Your task to perform on an android device: add a contact in the contacts app Image 0: 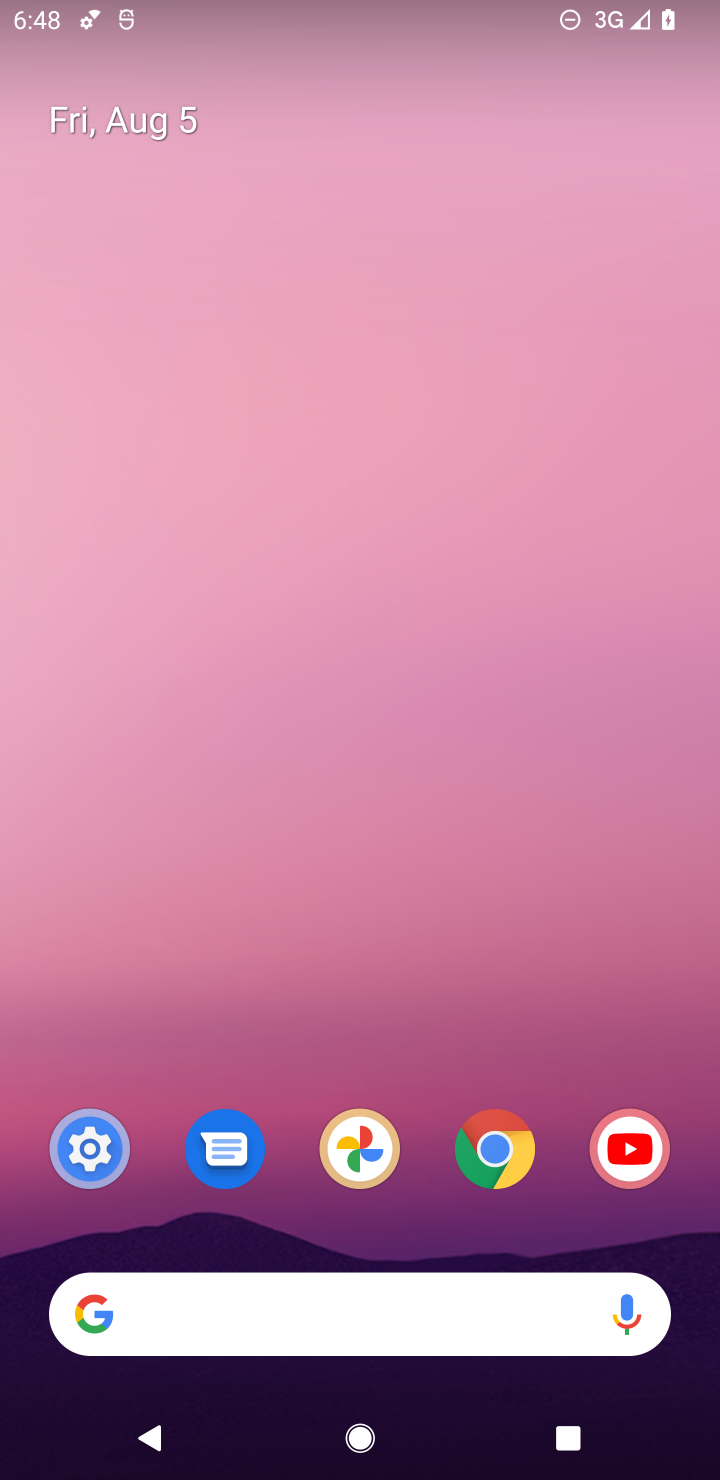
Step 0: drag from (277, 1006) to (463, 547)
Your task to perform on an android device: add a contact in the contacts app Image 1: 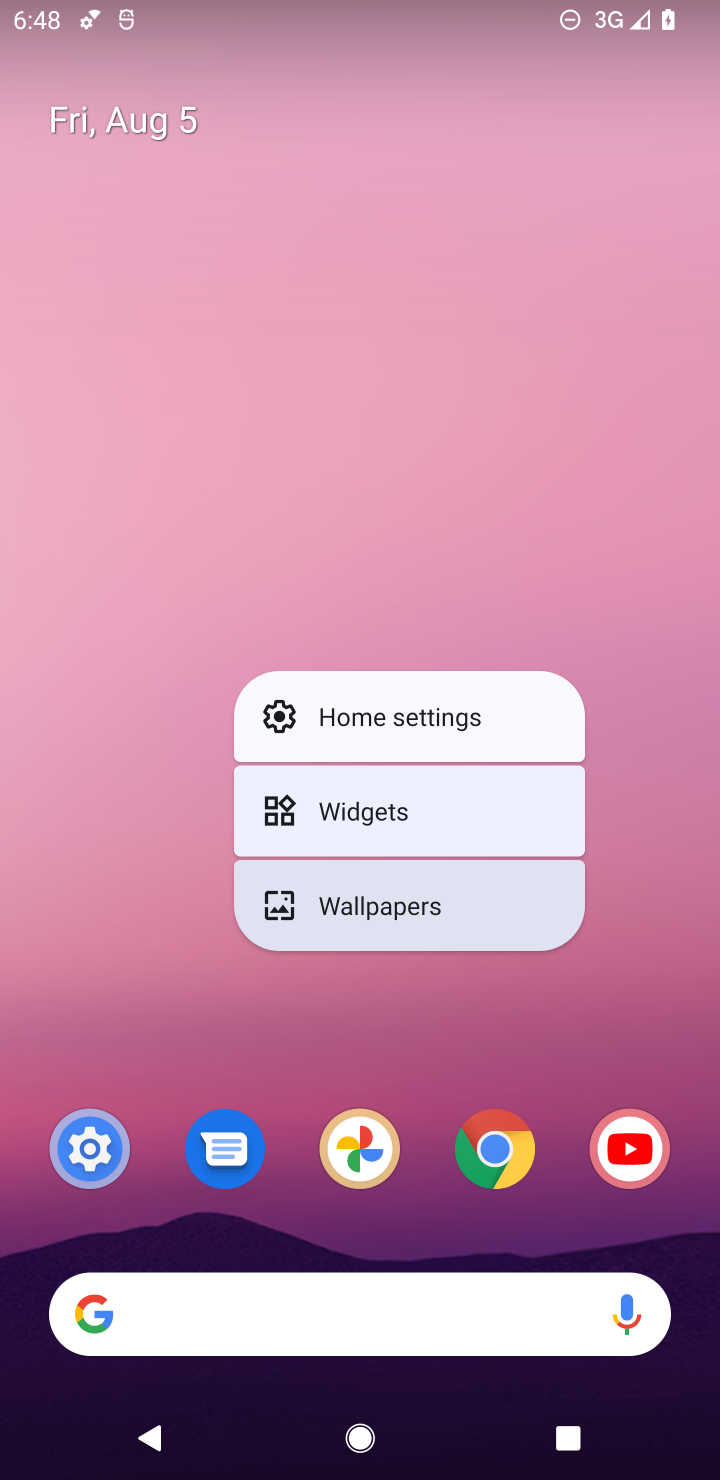
Step 1: click (277, 543)
Your task to perform on an android device: add a contact in the contacts app Image 2: 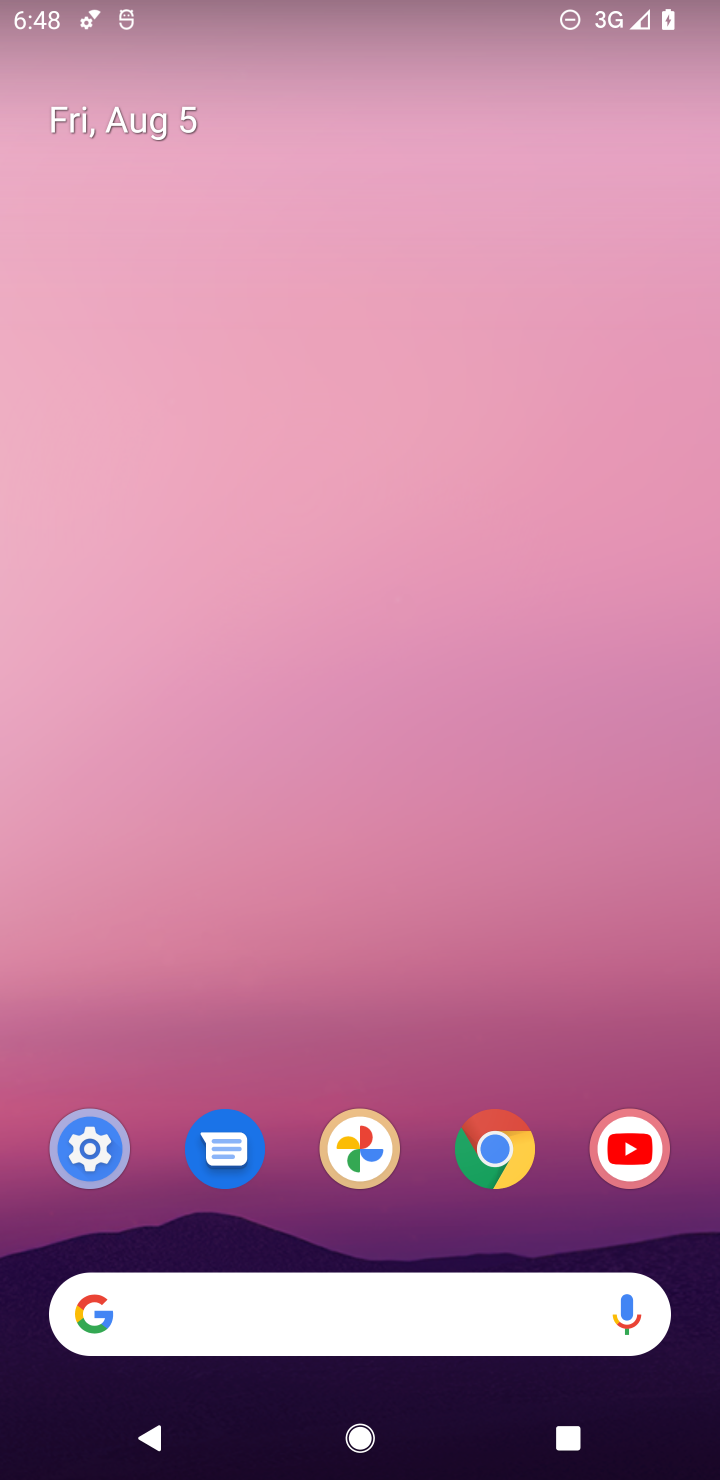
Step 2: drag from (132, 946) to (353, 291)
Your task to perform on an android device: add a contact in the contacts app Image 3: 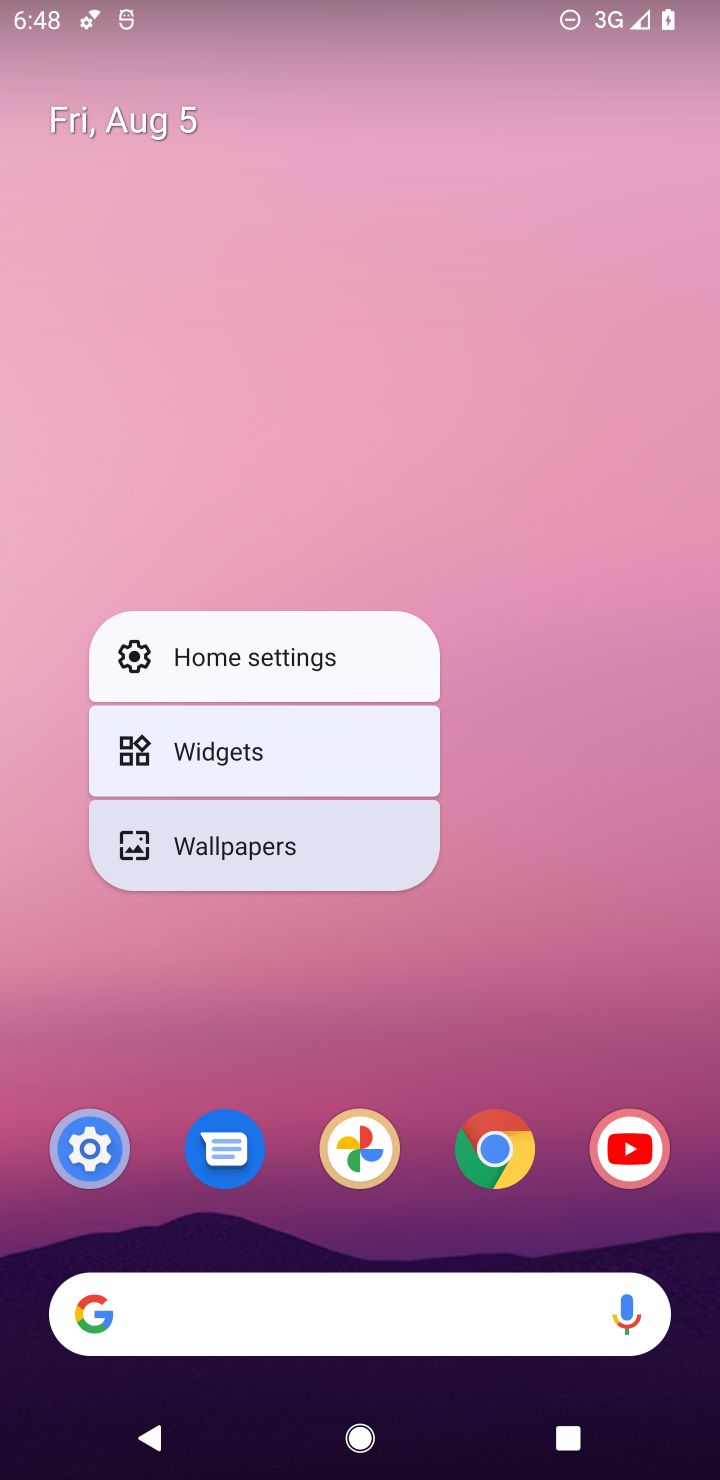
Step 3: click (483, 855)
Your task to perform on an android device: add a contact in the contacts app Image 4: 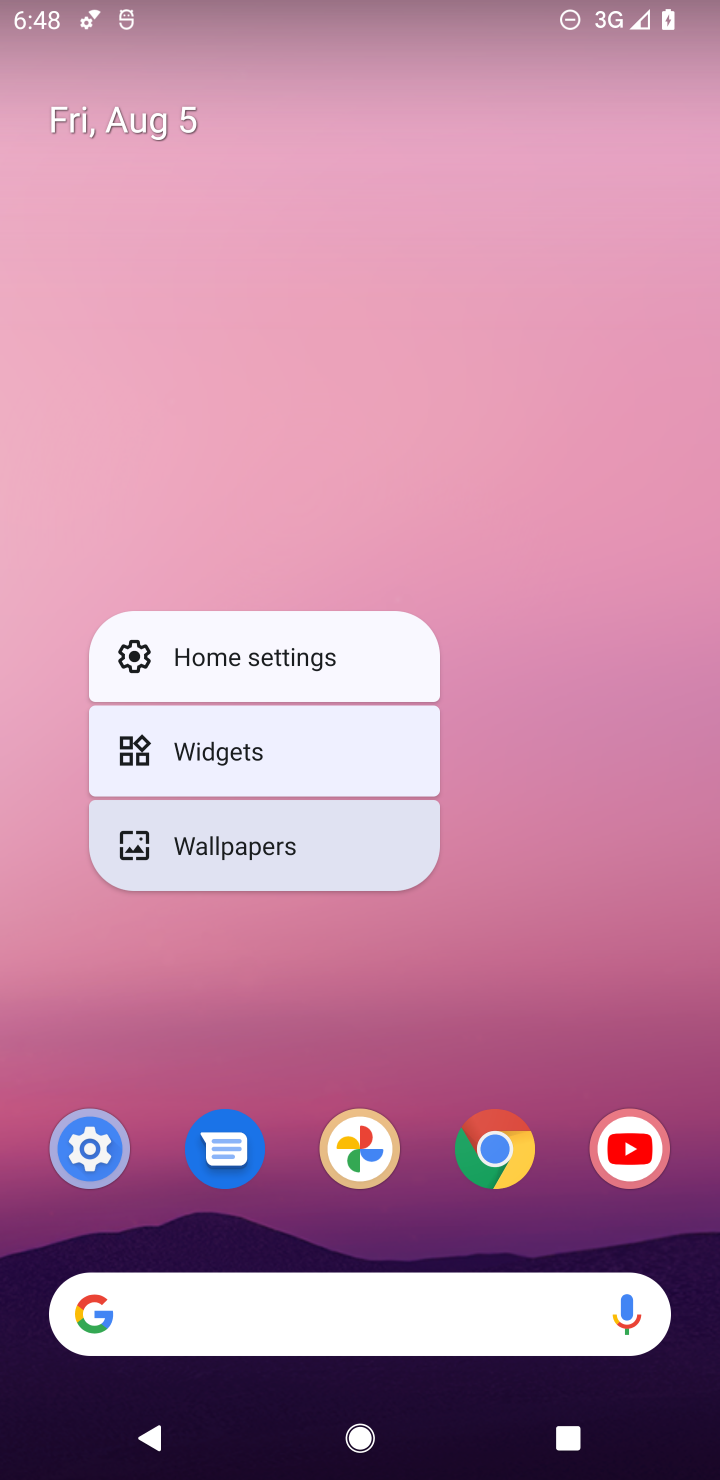
Step 4: drag from (483, 855) to (673, 246)
Your task to perform on an android device: add a contact in the contacts app Image 5: 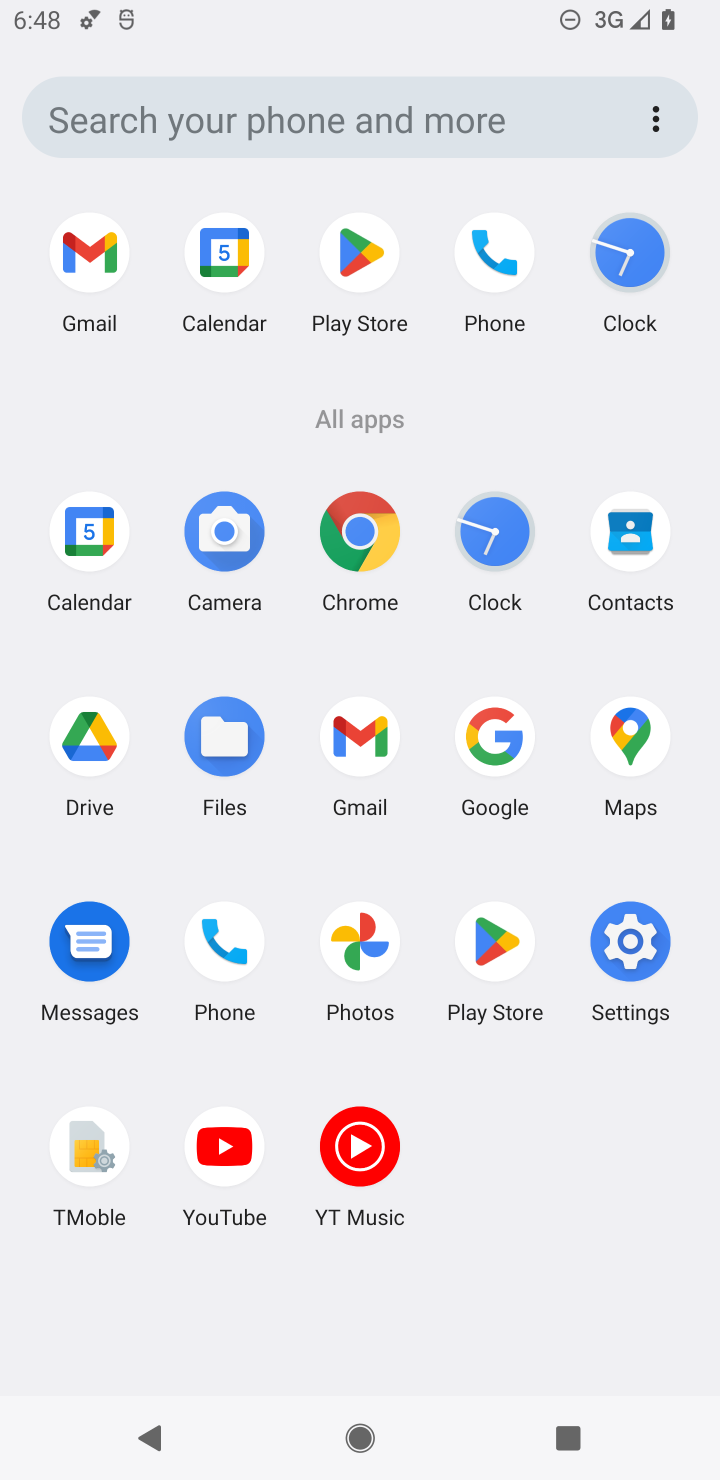
Step 5: click (492, 273)
Your task to perform on an android device: add a contact in the contacts app Image 6: 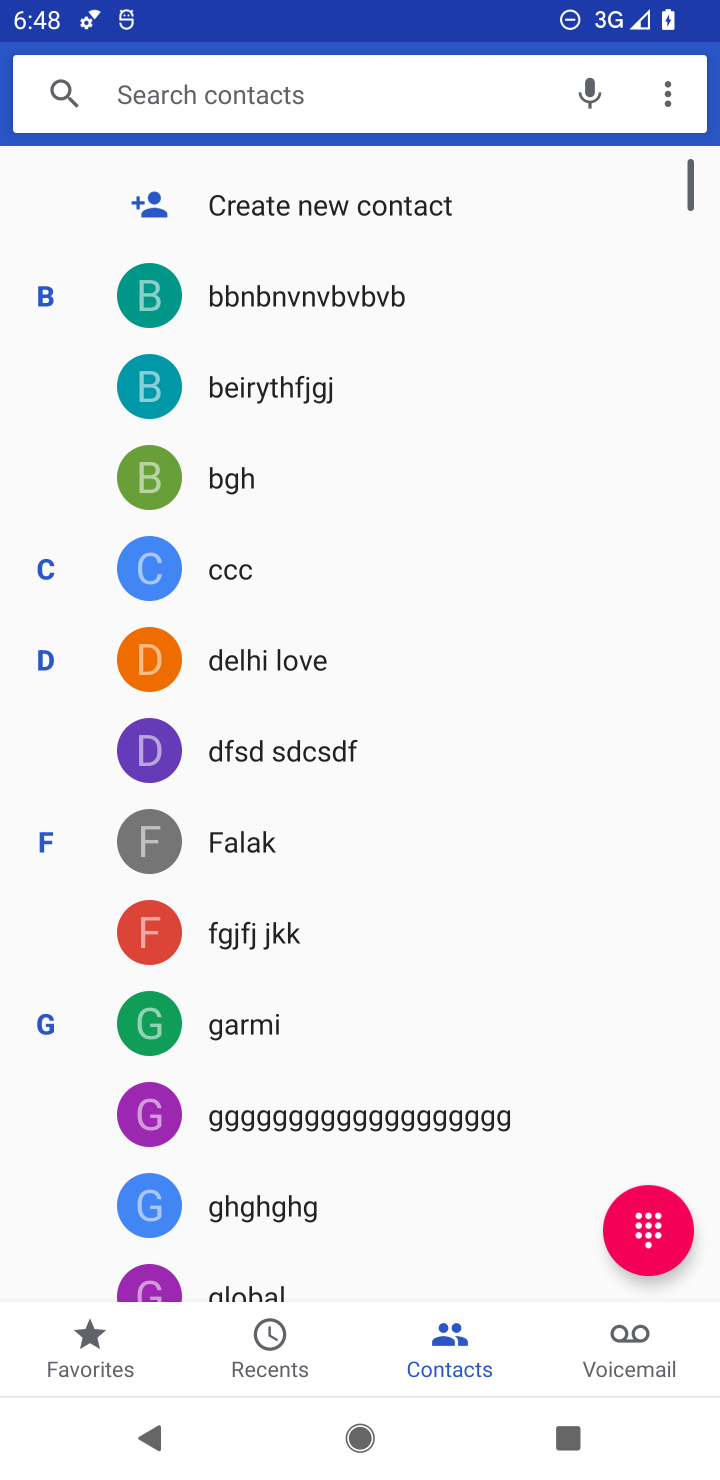
Step 6: click (347, 193)
Your task to perform on an android device: add a contact in the contacts app Image 7: 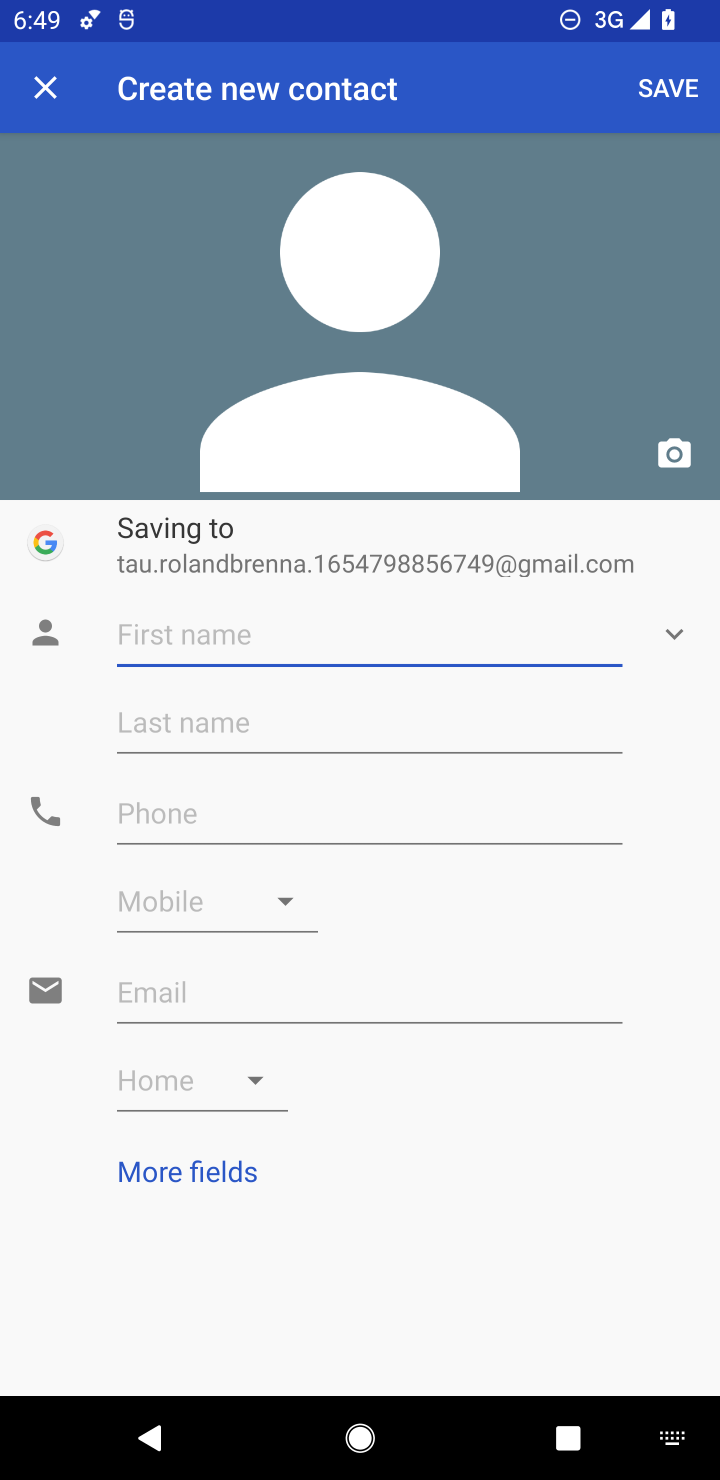
Step 7: type "ab"
Your task to perform on an android device: add a contact in the contacts app Image 8: 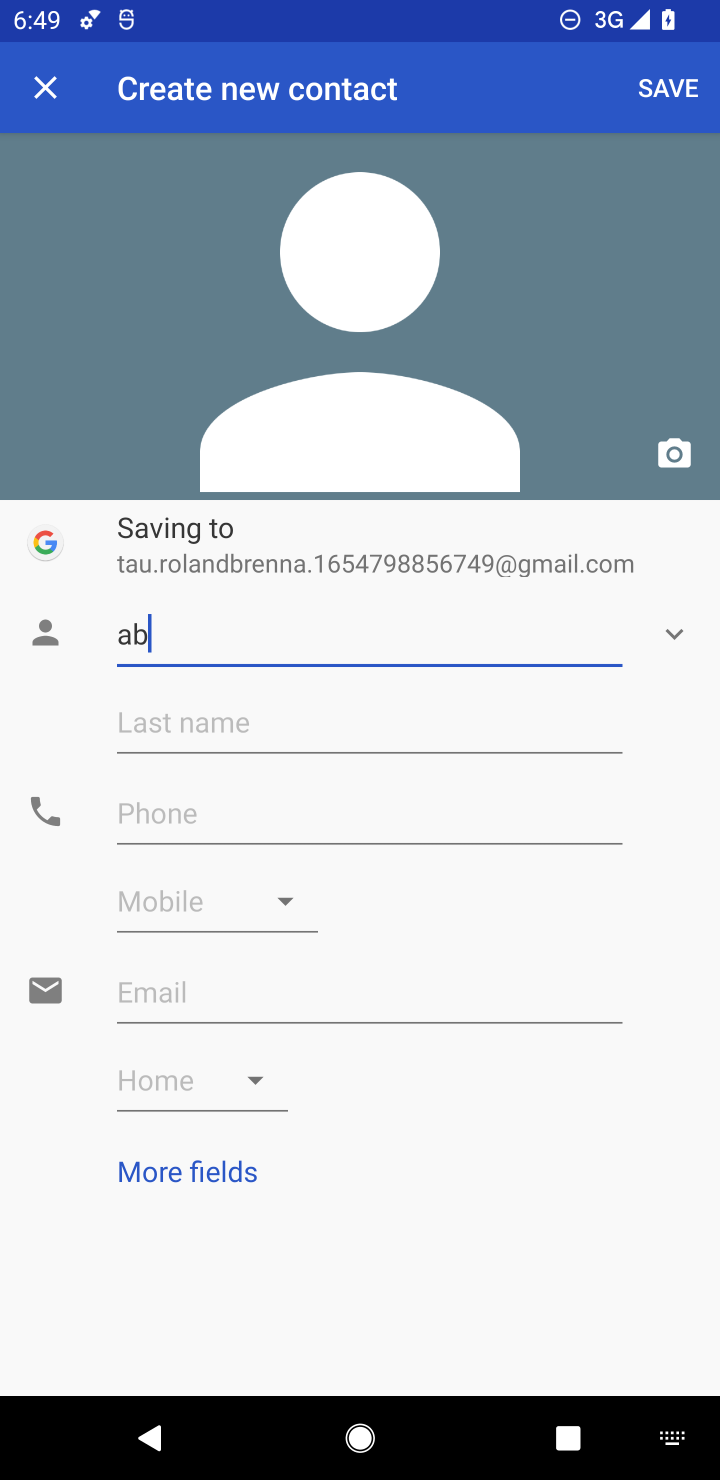
Step 8: click (218, 818)
Your task to perform on an android device: add a contact in the contacts app Image 9: 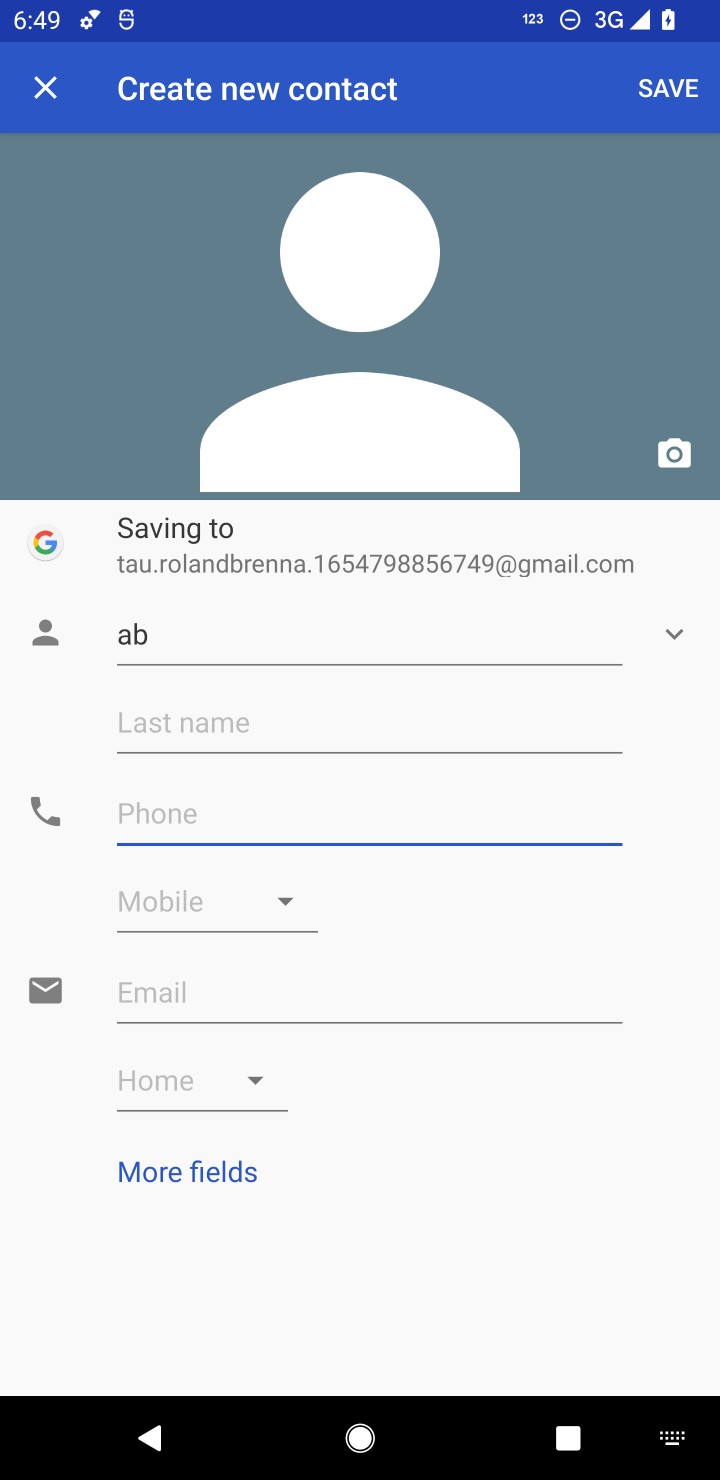
Step 9: type "1234"
Your task to perform on an android device: add a contact in the contacts app Image 10: 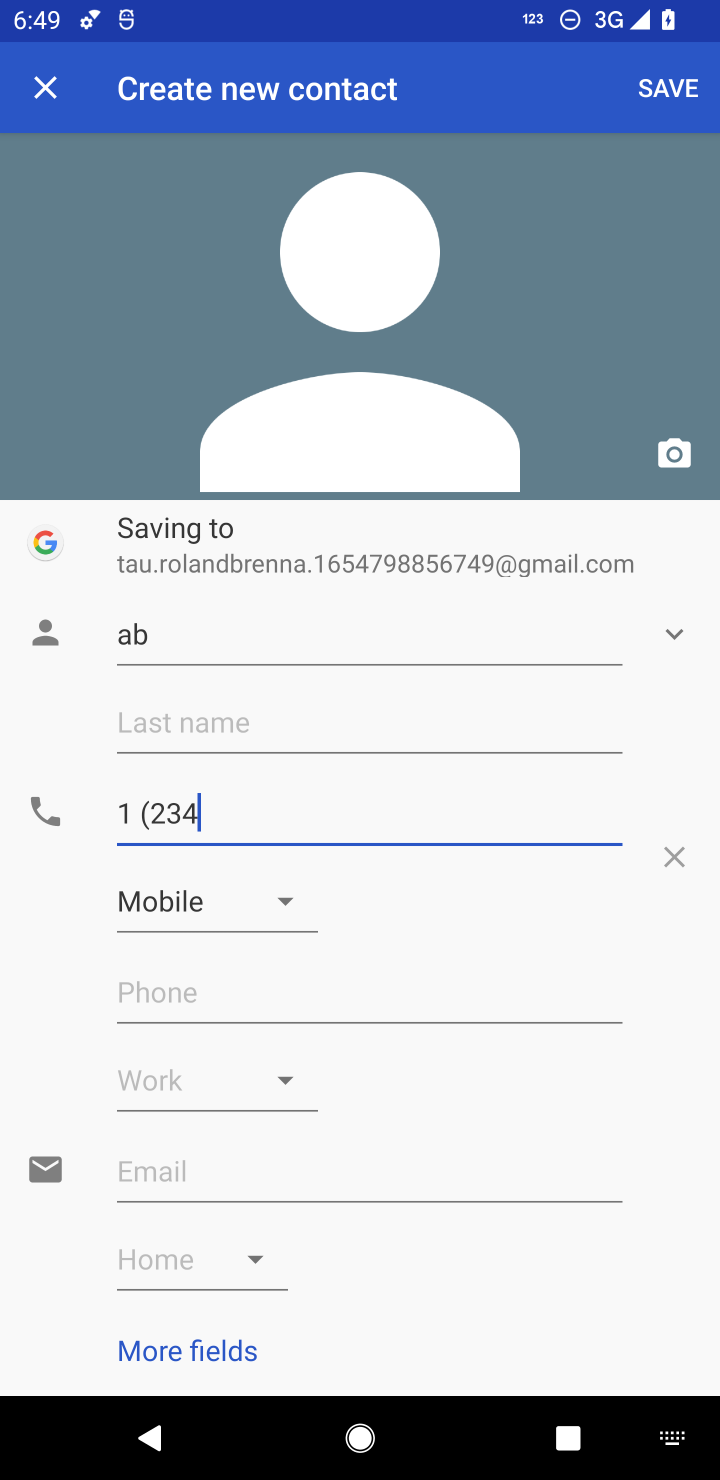
Step 10: click (651, 85)
Your task to perform on an android device: add a contact in the contacts app Image 11: 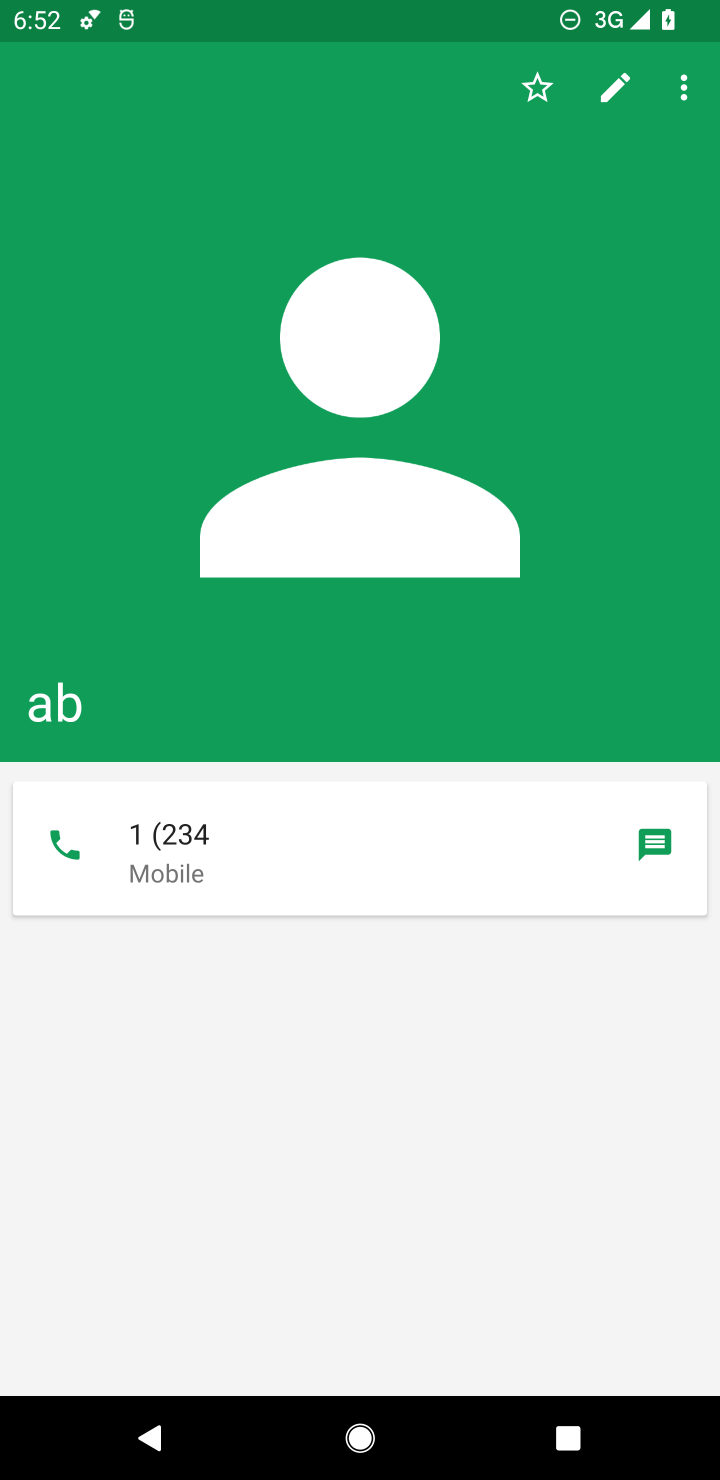
Step 11: task complete